Your task to perform on an android device: Open Google Maps and go to "Timeline" Image 0: 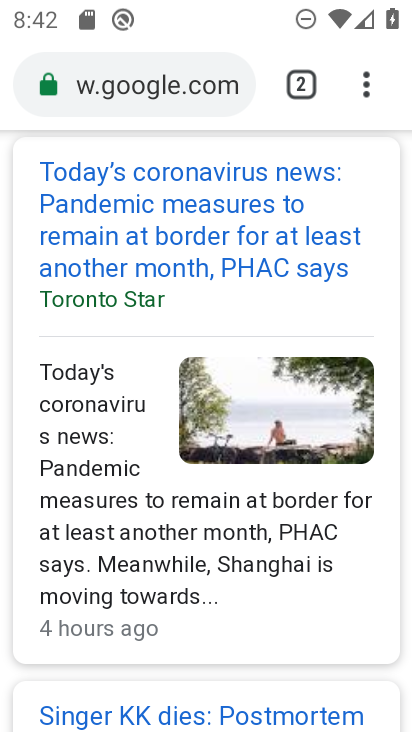
Step 0: press back button
Your task to perform on an android device: Open Google Maps and go to "Timeline" Image 1: 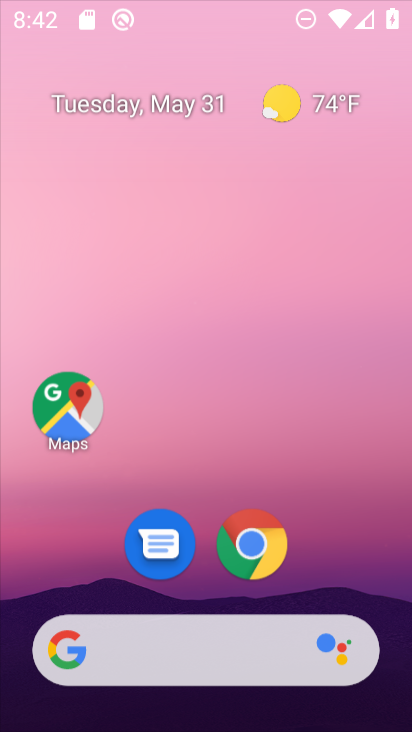
Step 1: press home button
Your task to perform on an android device: Open Google Maps and go to "Timeline" Image 2: 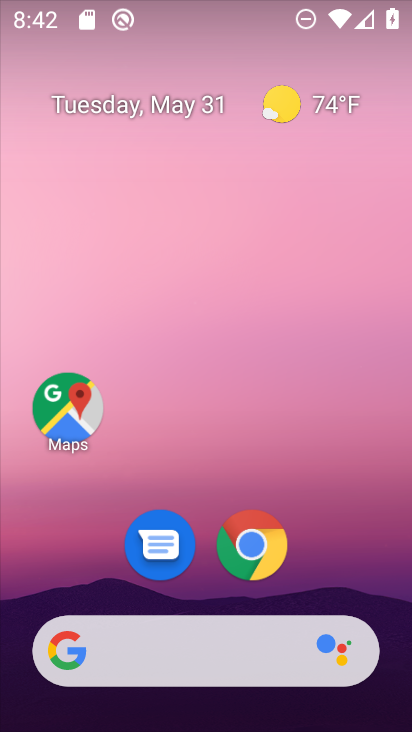
Step 2: drag from (349, 558) to (220, 9)
Your task to perform on an android device: Open Google Maps and go to "Timeline" Image 3: 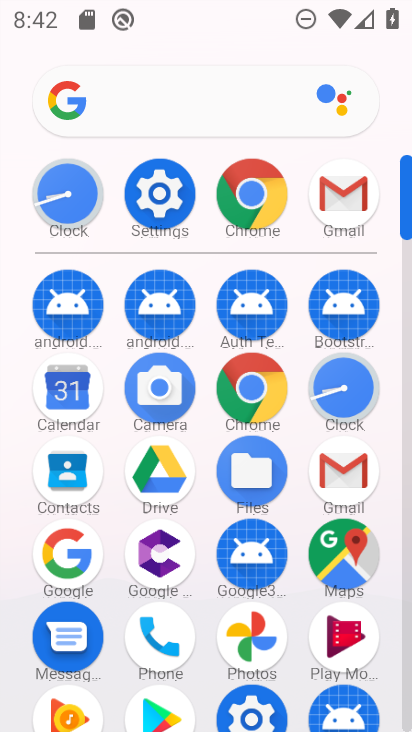
Step 3: drag from (6, 624) to (18, 219)
Your task to perform on an android device: Open Google Maps and go to "Timeline" Image 4: 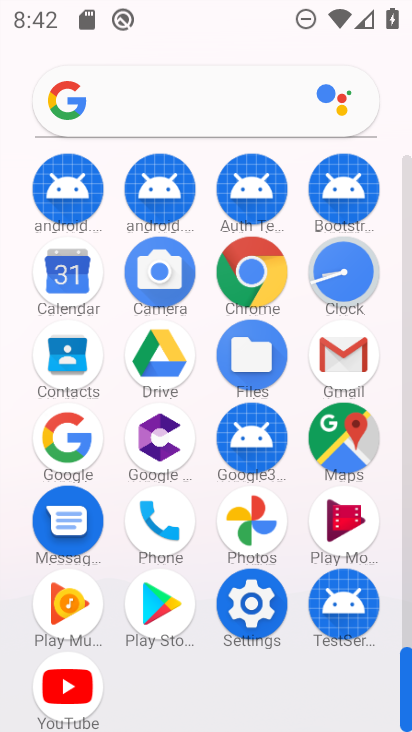
Step 4: click (340, 436)
Your task to perform on an android device: Open Google Maps and go to "Timeline" Image 5: 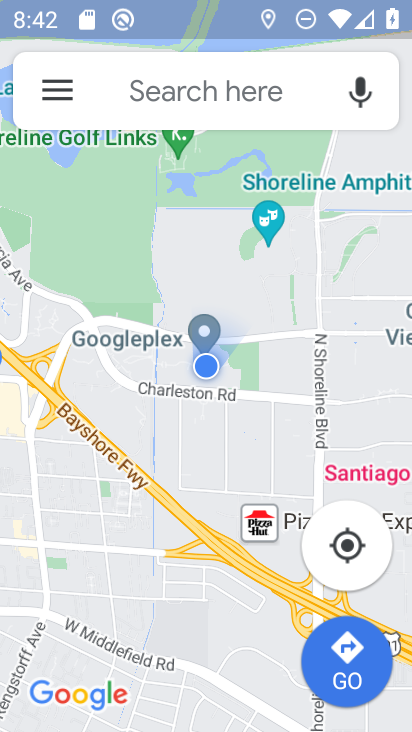
Step 5: click (51, 84)
Your task to perform on an android device: Open Google Maps and go to "Timeline" Image 6: 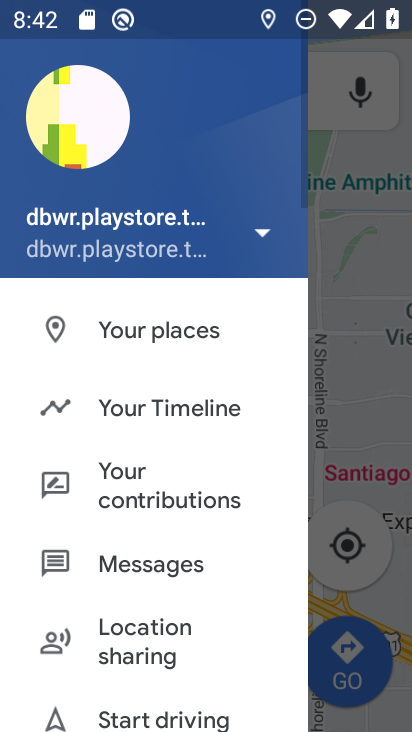
Step 6: click (151, 413)
Your task to perform on an android device: Open Google Maps and go to "Timeline" Image 7: 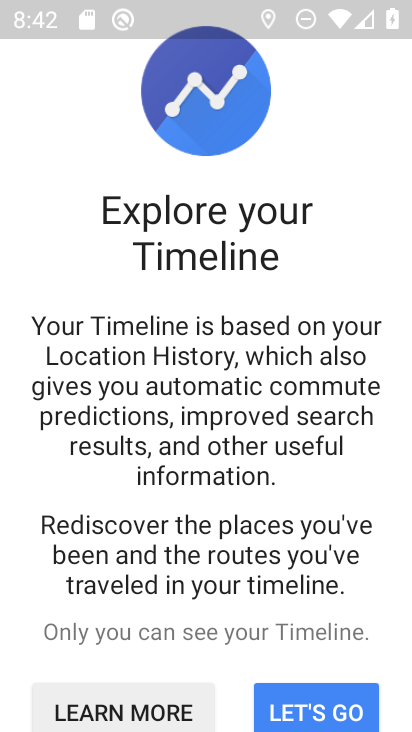
Step 7: click (319, 710)
Your task to perform on an android device: Open Google Maps and go to "Timeline" Image 8: 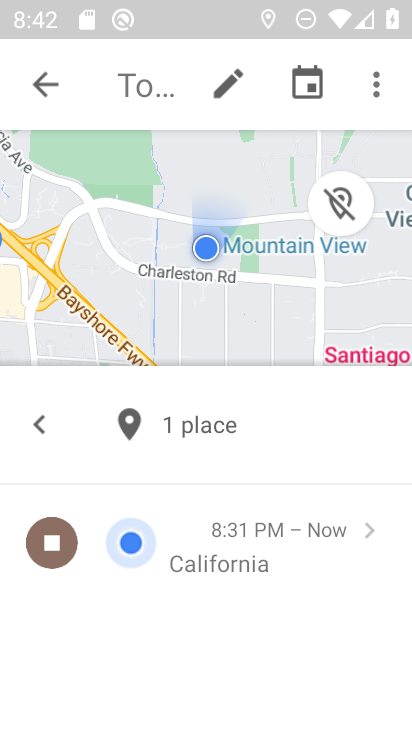
Step 8: task complete